Your task to perform on an android device: empty trash in the gmail app Image 0: 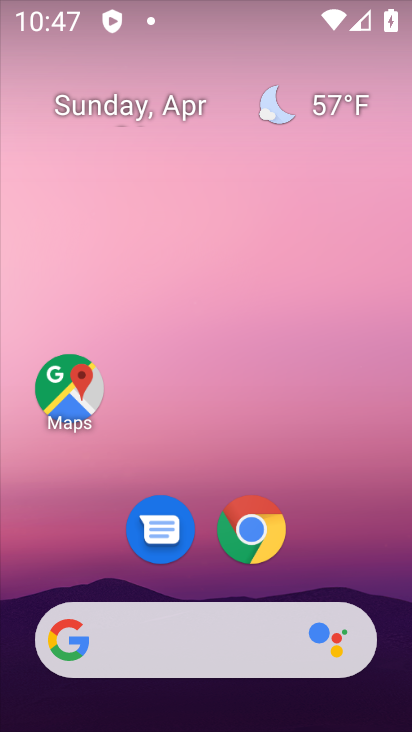
Step 0: drag from (206, 568) to (124, 10)
Your task to perform on an android device: empty trash in the gmail app Image 1: 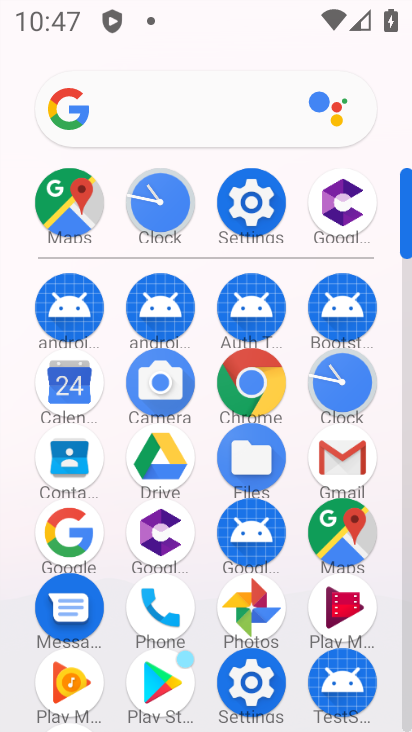
Step 1: click (252, 685)
Your task to perform on an android device: empty trash in the gmail app Image 2: 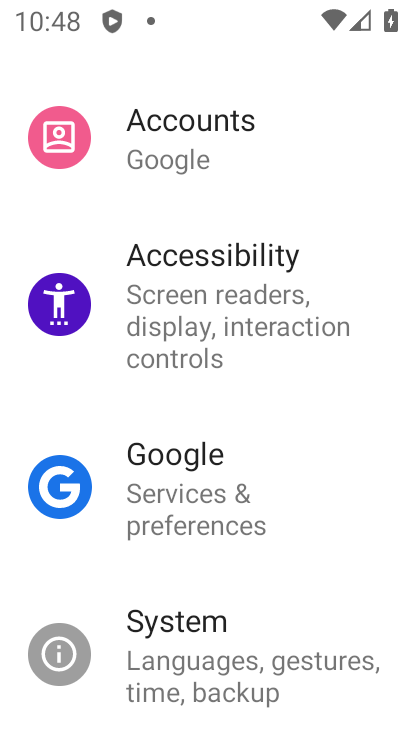
Step 2: press home button
Your task to perform on an android device: empty trash in the gmail app Image 3: 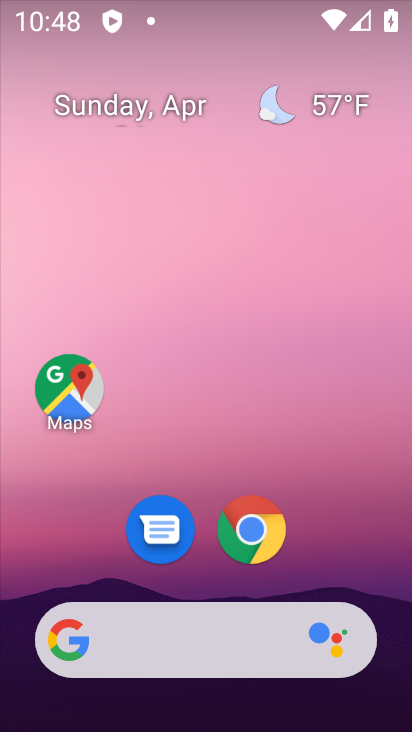
Step 3: drag from (204, 478) to (172, 23)
Your task to perform on an android device: empty trash in the gmail app Image 4: 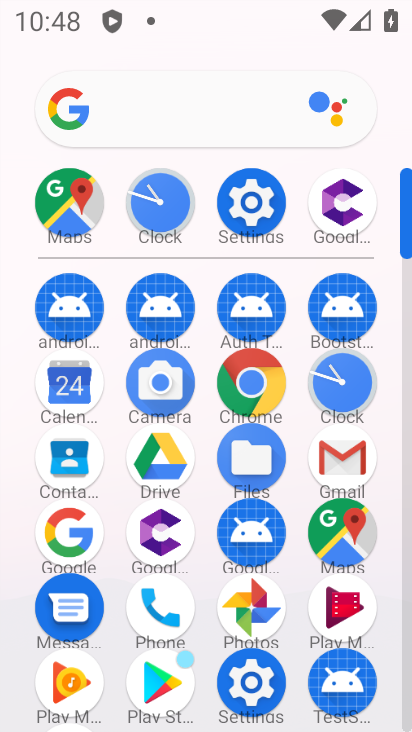
Step 4: click (359, 453)
Your task to perform on an android device: empty trash in the gmail app Image 5: 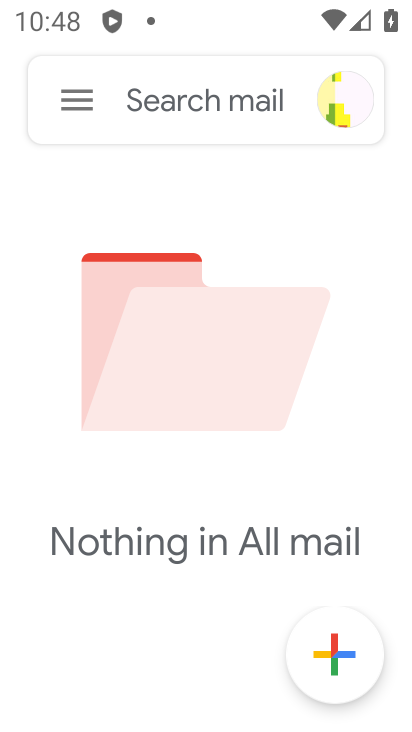
Step 5: click (78, 109)
Your task to perform on an android device: empty trash in the gmail app Image 6: 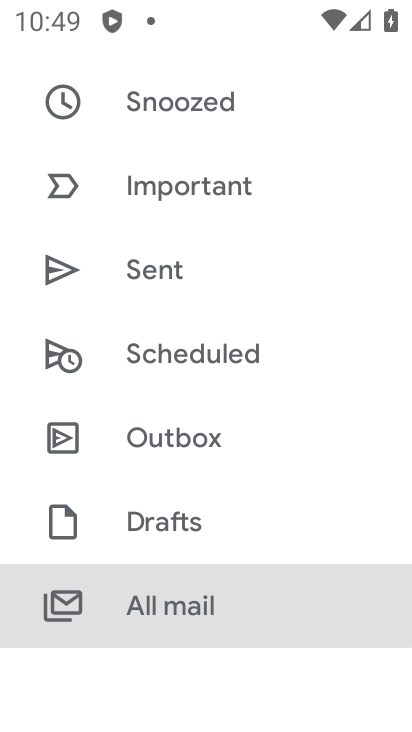
Step 6: drag from (267, 508) to (205, 127)
Your task to perform on an android device: empty trash in the gmail app Image 7: 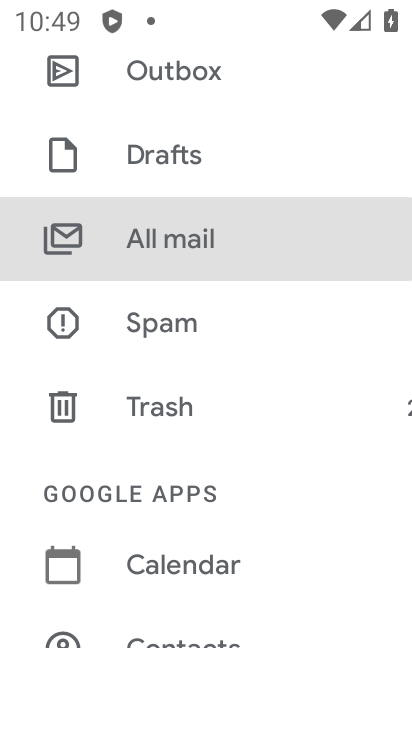
Step 7: click (165, 398)
Your task to perform on an android device: empty trash in the gmail app Image 8: 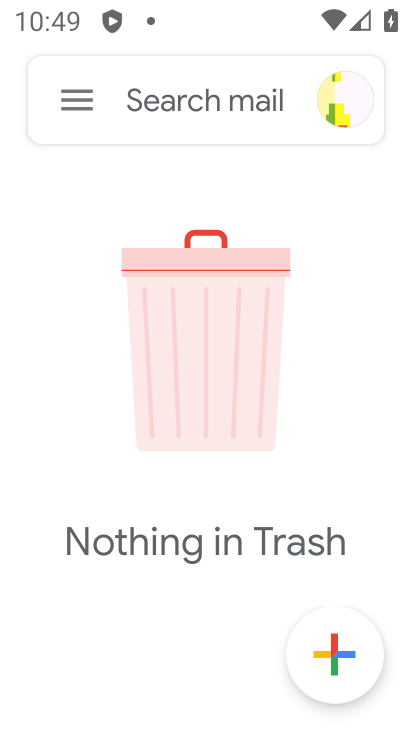
Step 8: task complete